Your task to perform on an android device: Is it going to rain tomorrow? Image 0: 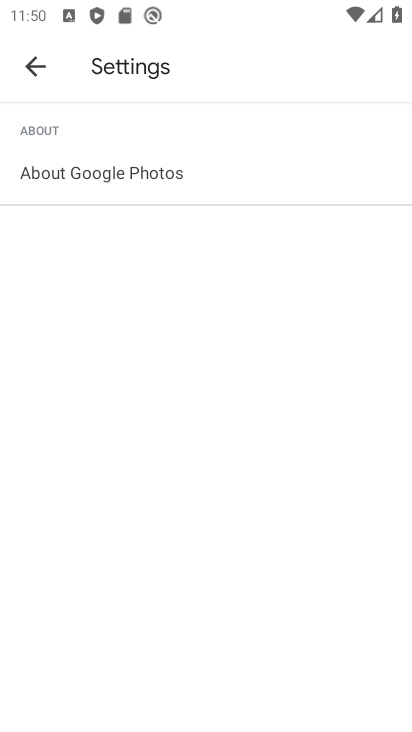
Step 0: press home button
Your task to perform on an android device: Is it going to rain tomorrow? Image 1: 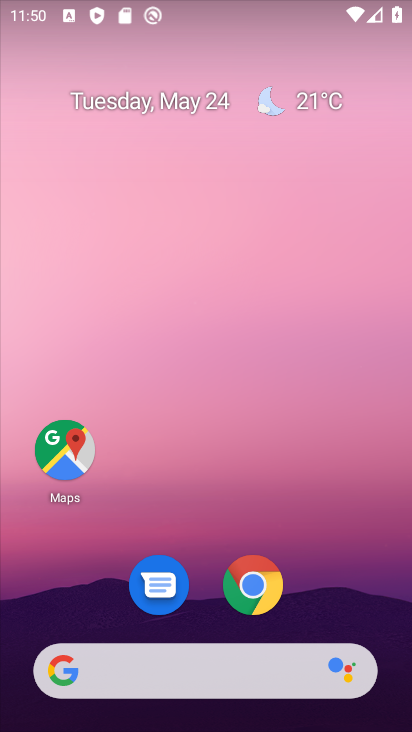
Step 1: click (120, 669)
Your task to perform on an android device: Is it going to rain tomorrow? Image 2: 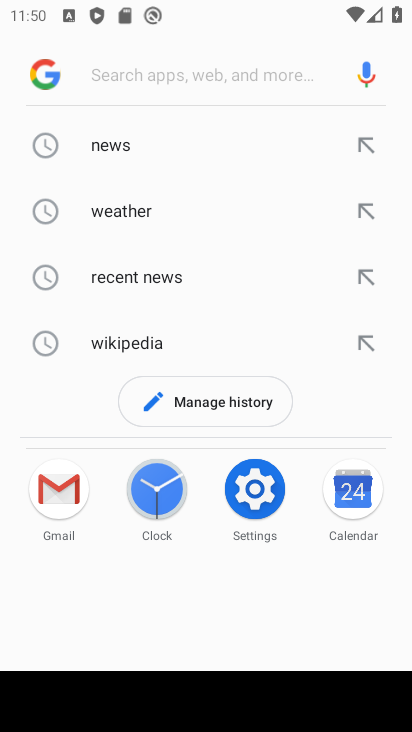
Step 2: click (116, 211)
Your task to perform on an android device: Is it going to rain tomorrow? Image 3: 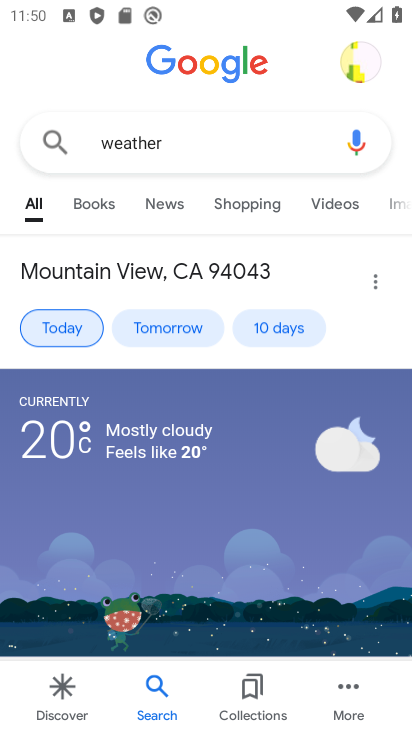
Step 3: click (74, 317)
Your task to perform on an android device: Is it going to rain tomorrow? Image 4: 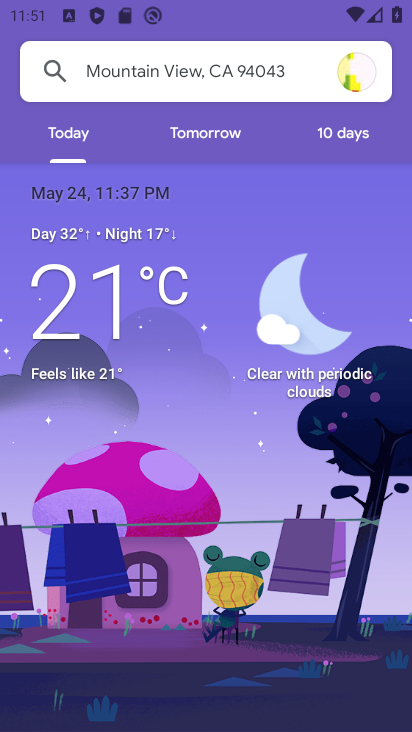
Step 4: click (222, 136)
Your task to perform on an android device: Is it going to rain tomorrow? Image 5: 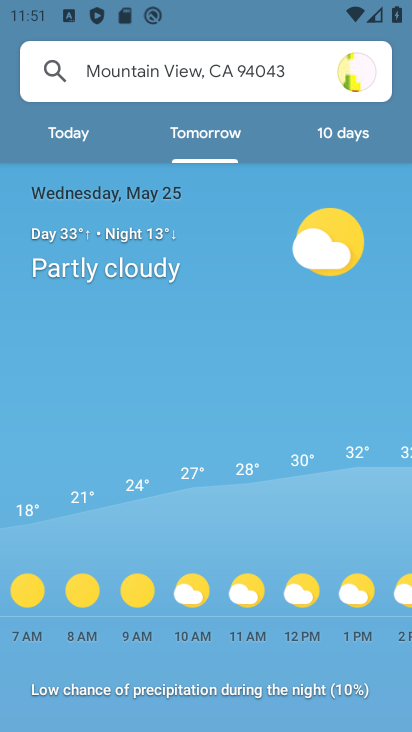
Step 5: task complete